Your task to perform on an android device: open sync settings in chrome Image 0: 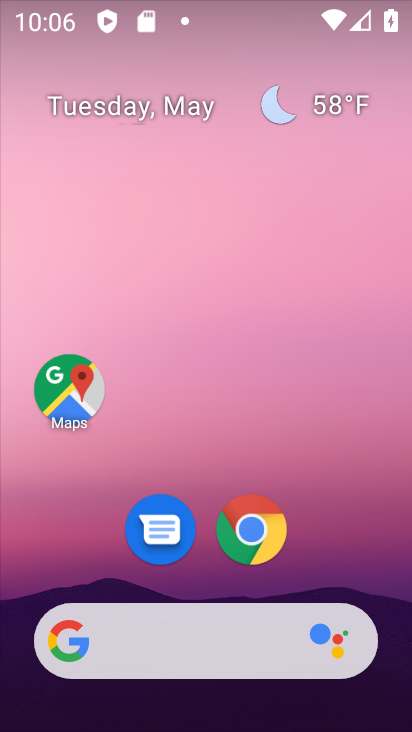
Step 0: click (229, 539)
Your task to perform on an android device: open sync settings in chrome Image 1: 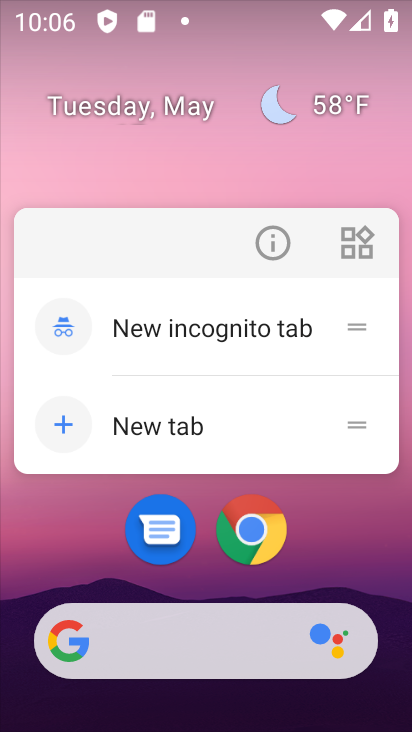
Step 1: click (234, 540)
Your task to perform on an android device: open sync settings in chrome Image 2: 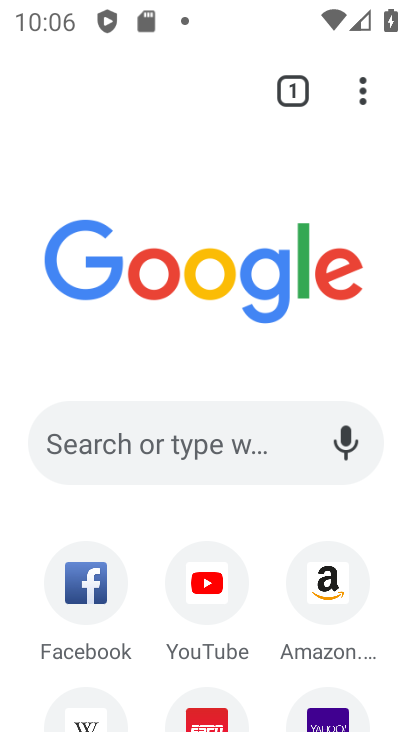
Step 2: drag from (365, 98) to (250, 569)
Your task to perform on an android device: open sync settings in chrome Image 3: 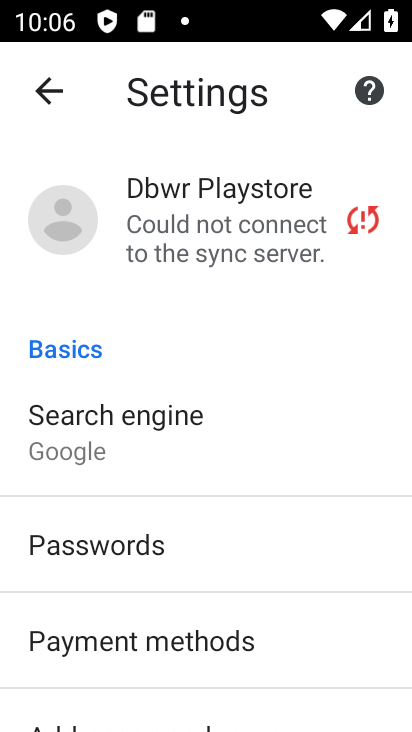
Step 3: click (217, 239)
Your task to perform on an android device: open sync settings in chrome Image 4: 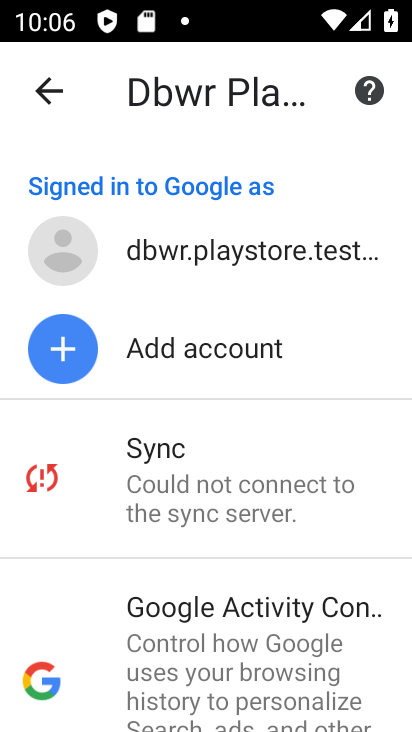
Step 4: click (248, 490)
Your task to perform on an android device: open sync settings in chrome Image 5: 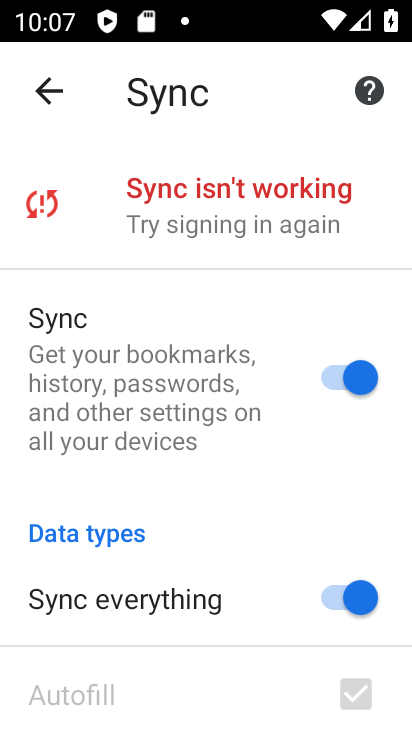
Step 5: task complete